Your task to perform on an android device: Go to notification settings Image 0: 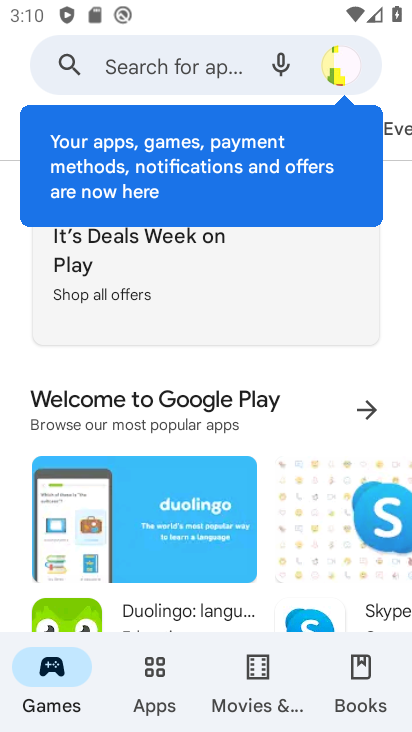
Step 0: press home button
Your task to perform on an android device: Go to notification settings Image 1: 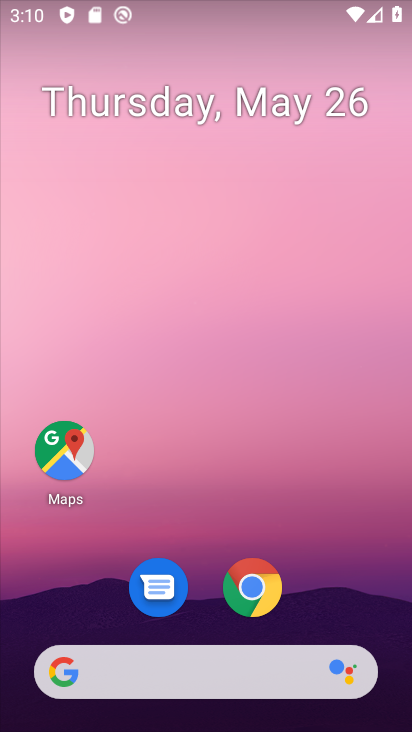
Step 1: drag from (102, 590) to (198, 154)
Your task to perform on an android device: Go to notification settings Image 2: 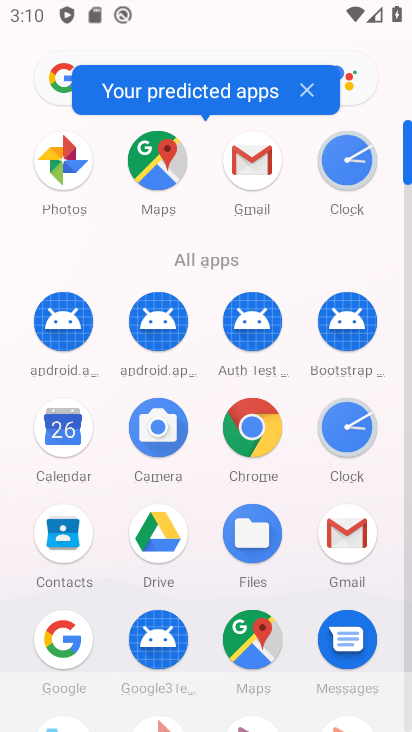
Step 2: drag from (213, 662) to (286, 421)
Your task to perform on an android device: Go to notification settings Image 3: 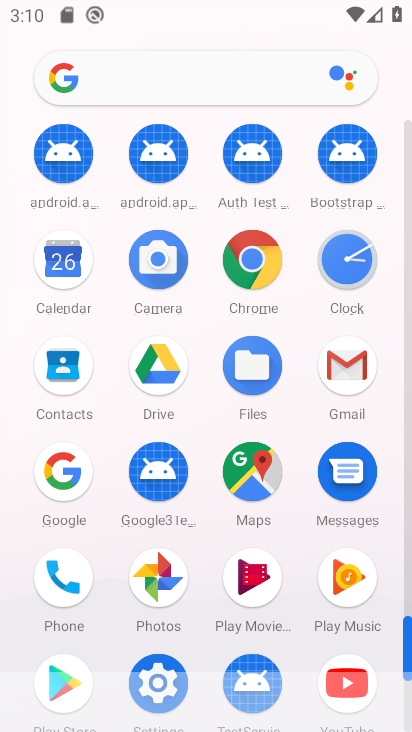
Step 3: click (171, 659)
Your task to perform on an android device: Go to notification settings Image 4: 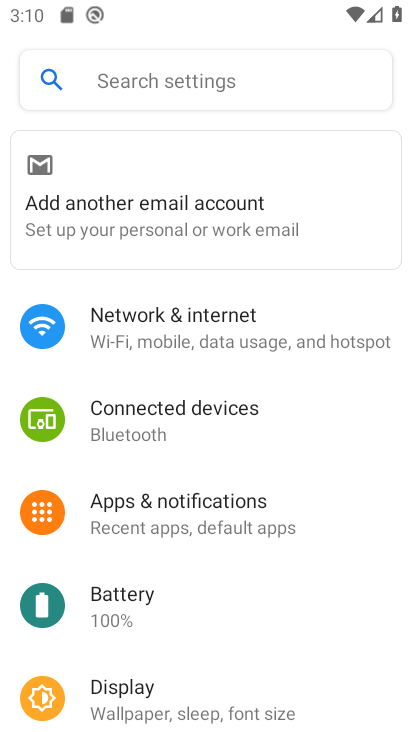
Step 4: drag from (185, 593) to (252, 317)
Your task to perform on an android device: Go to notification settings Image 5: 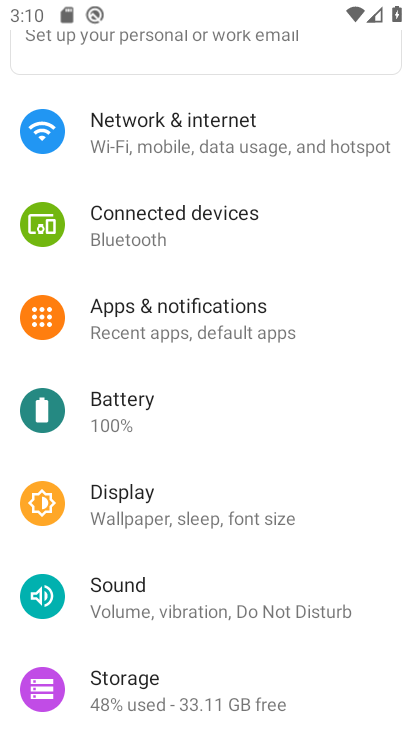
Step 5: click (241, 322)
Your task to perform on an android device: Go to notification settings Image 6: 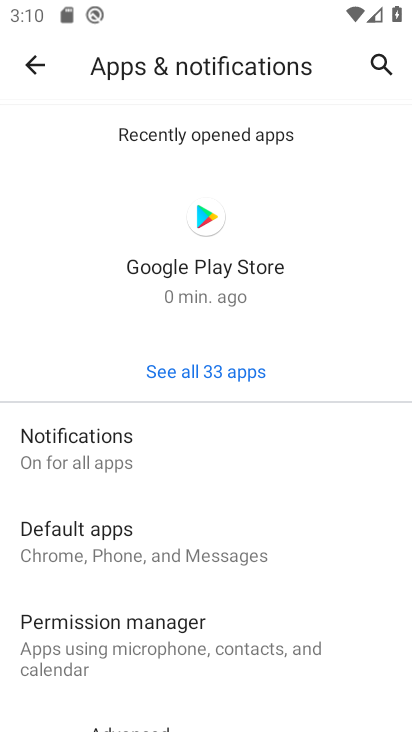
Step 6: click (209, 448)
Your task to perform on an android device: Go to notification settings Image 7: 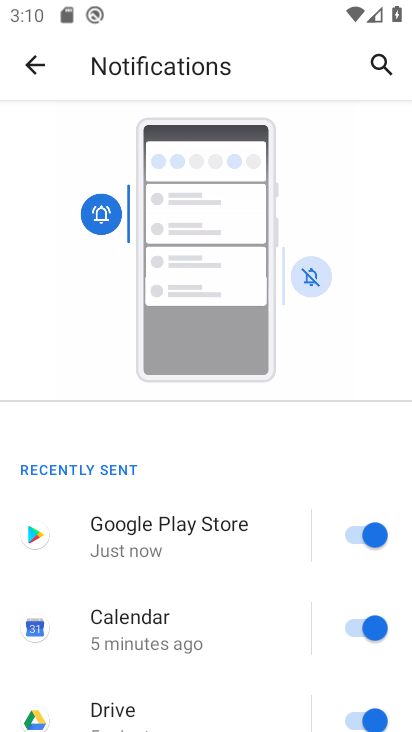
Step 7: task complete